Your task to perform on an android device: When is my next appointment? Image 0: 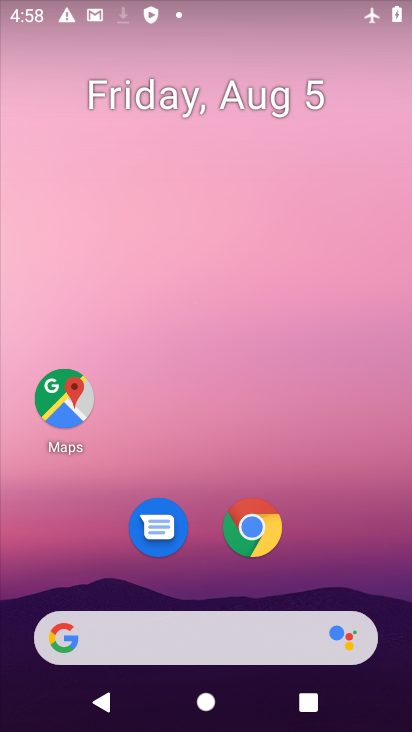
Step 0: drag from (193, 575) to (223, 156)
Your task to perform on an android device: When is my next appointment? Image 1: 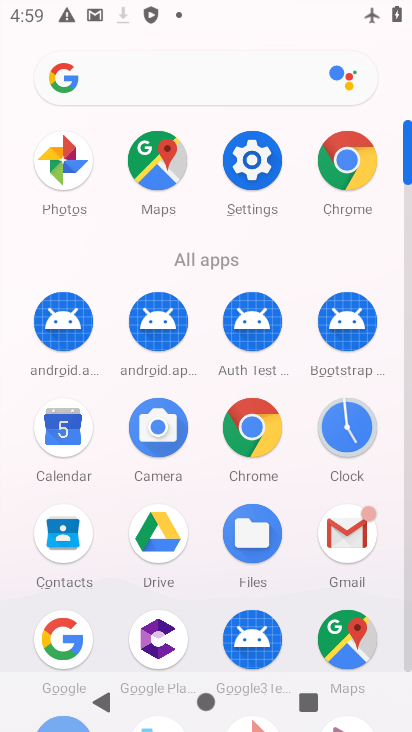
Step 1: click (55, 429)
Your task to perform on an android device: When is my next appointment? Image 2: 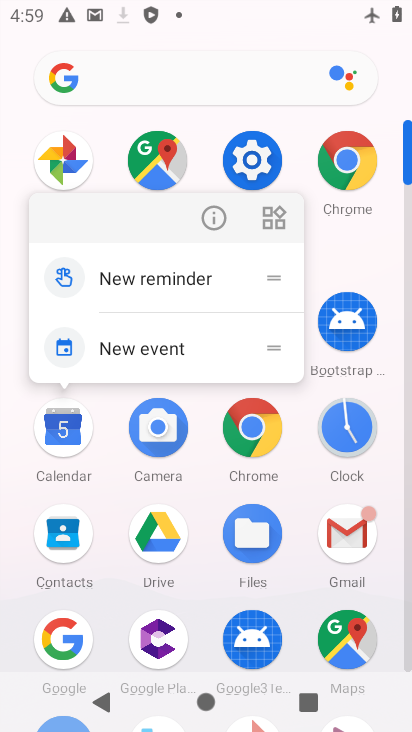
Step 2: click (217, 208)
Your task to perform on an android device: When is my next appointment? Image 3: 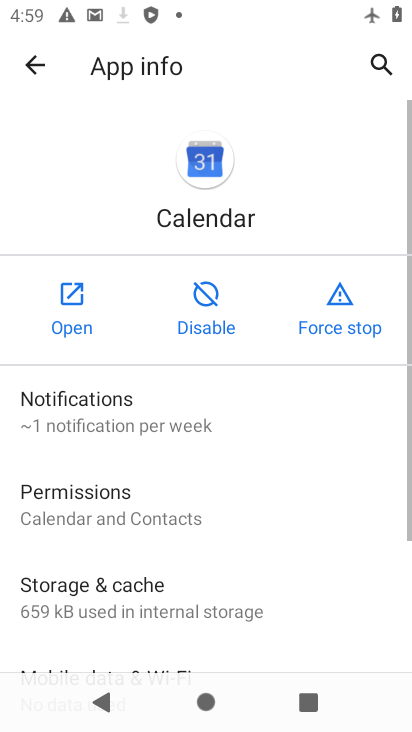
Step 3: click (79, 294)
Your task to perform on an android device: When is my next appointment? Image 4: 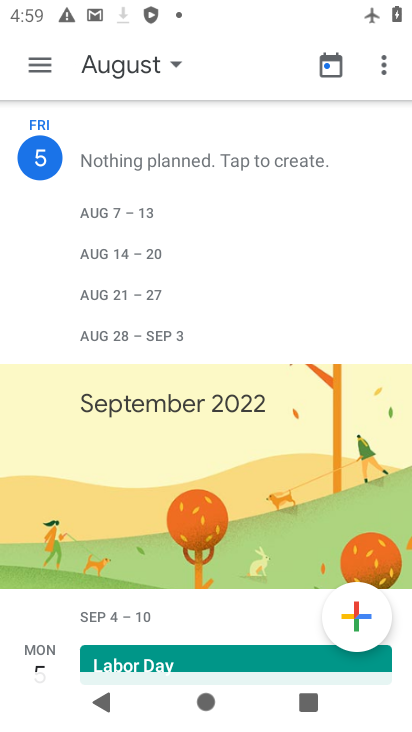
Step 4: click (335, 73)
Your task to perform on an android device: When is my next appointment? Image 5: 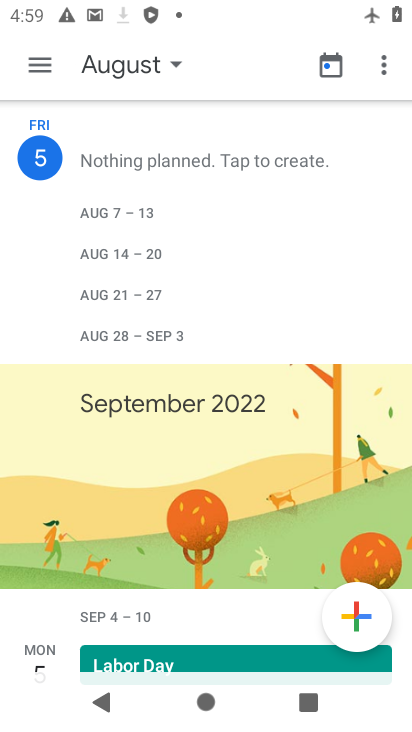
Step 5: click (138, 63)
Your task to perform on an android device: When is my next appointment? Image 6: 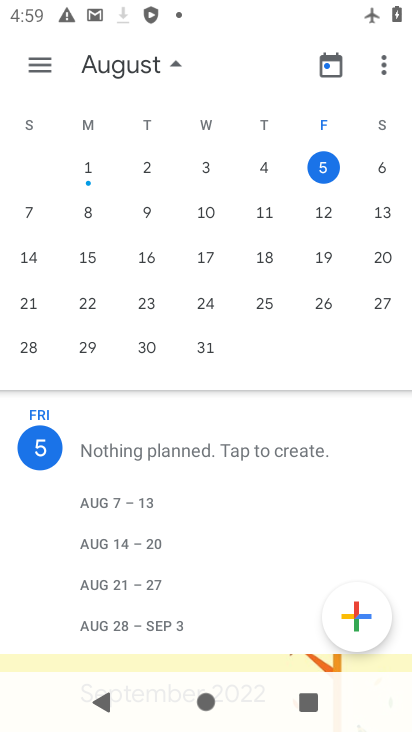
Step 6: click (379, 164)
Your task to perform on an android device: When is my next appointment? Image 7: 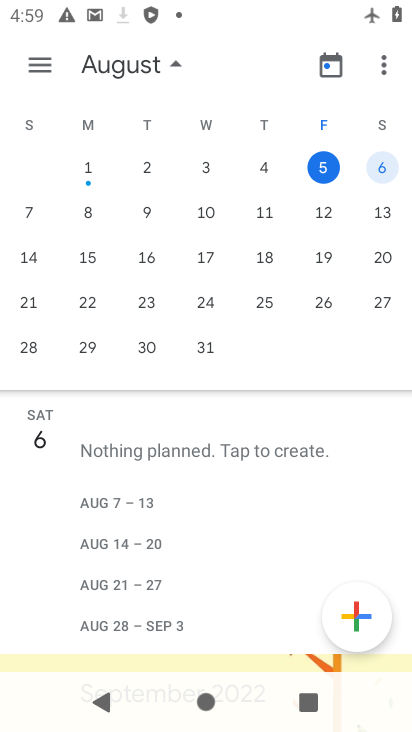
Step 7: click (325, 171)
Your task to perform on an android device: When is my next appointment? Image 8: 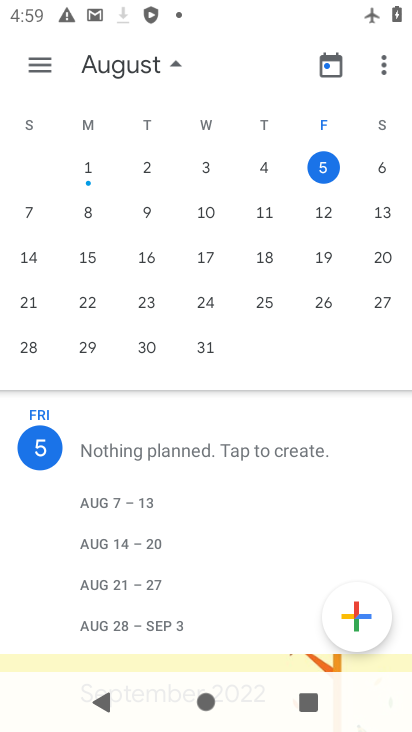
Step 8: task complete